Your task to perform on an android device: search for starred emails in the gmail app Image 0: 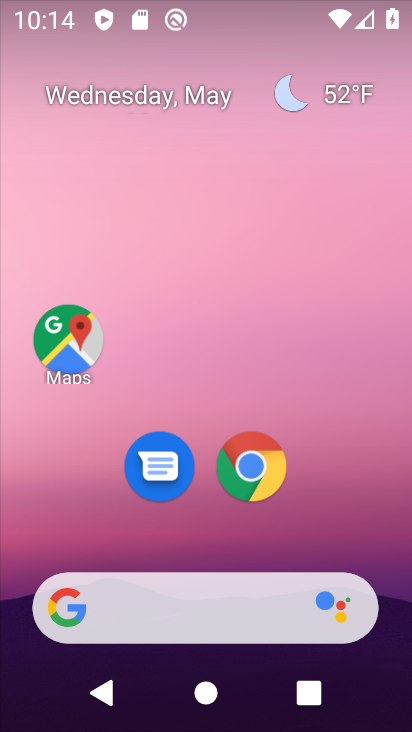
Step 0: drag from (214, 530) to (192, 97)
Your task to perform on an android device: search for starred emails in the gmail app Image 1: 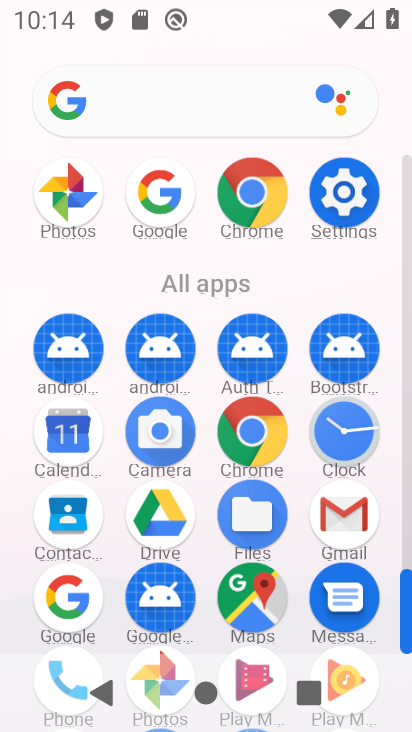
Step 1: click (348, 517)
Your task to perform on an android device: search for starred emails in the gmail app Image 2: 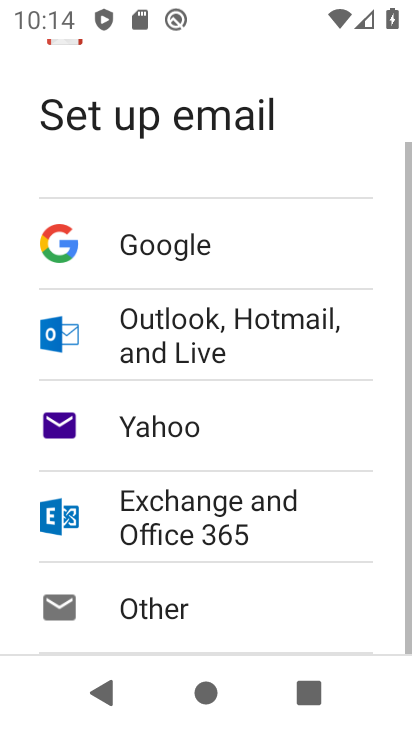
Step 2: drag from (180, 566) to (268, 215)
Your task to perform on an android device: search for starred emails in the gmail app Image 3: 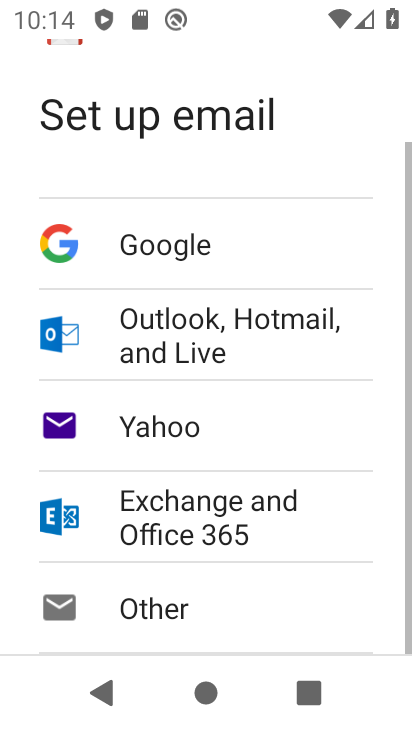
Step 3: press back button
Your task to perform on an android device: search for starred emails in the gmail app Image 4: 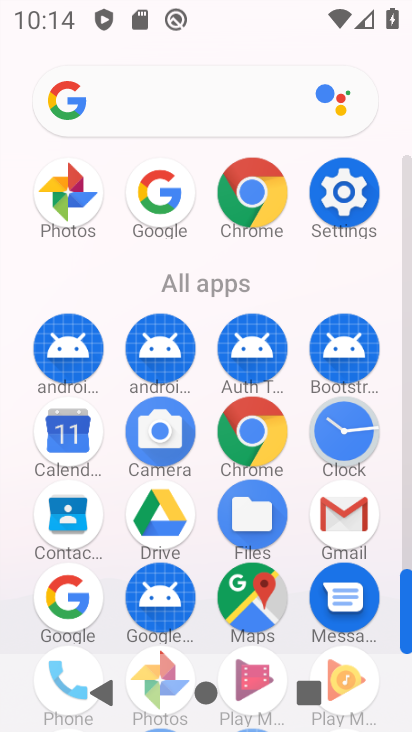
Step 4: click (341, 502)
Your task to perform on an android device: search for starred emails in the gmail app Image 5: 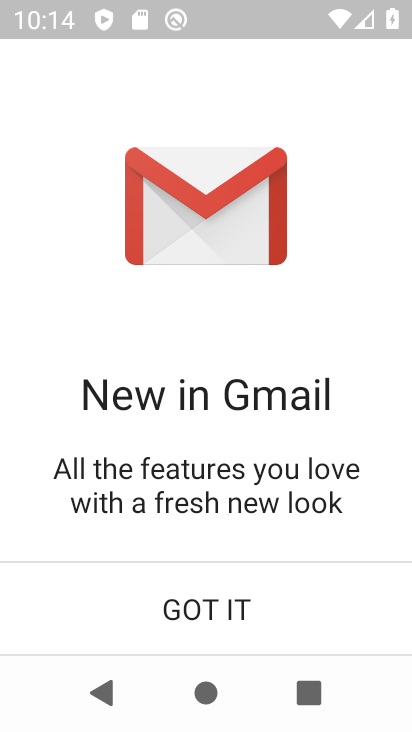
Step 5: click (177, 574)
Your task to perform on an android device: search for starred emails in the gmail app Image 6: 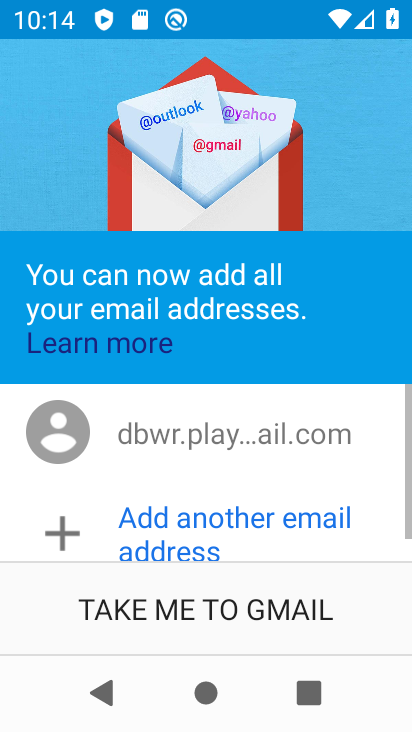
Step 6: click (155, 608)
Your task to perform on an android device: search for starred emails in the gmail app Image 7: 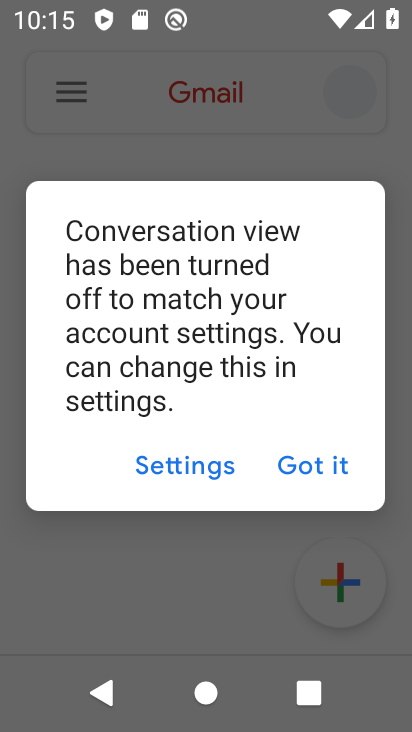
Step 7: click (302, 479)
Your task to perform on an android device: search for starred emails in the gmail app Image 8: 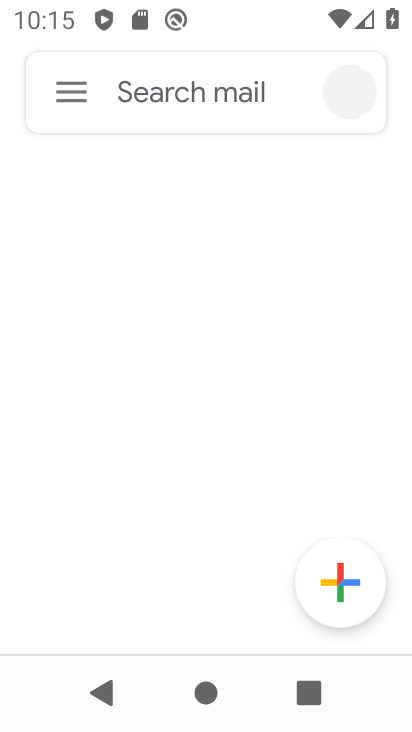
Step 8: click (73, 103)
Your task to perform on an android device: search for starred emails in the gmail app Image 9: 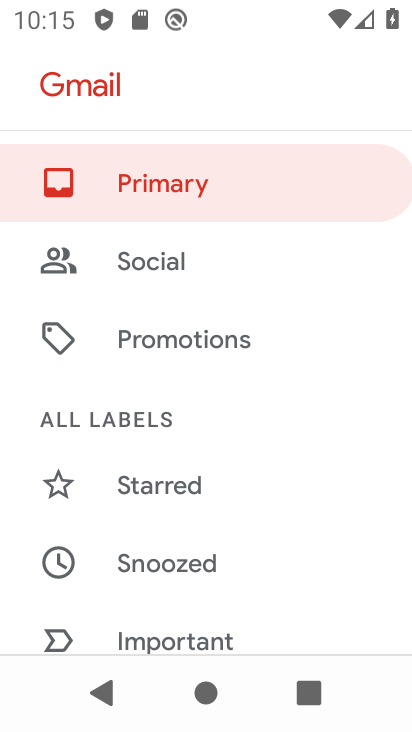
Step 9: drag from (230, 565) to (233, 442)
Your task to perform on an android device: search for starred emails in the gmail app Image 10: 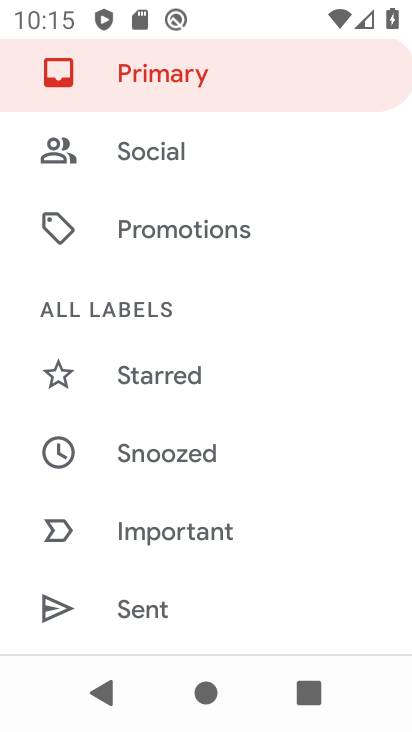
Step 10: click (150, 371)
Your task to perform on an android device: search for starred emails in the gmail app Image 11: 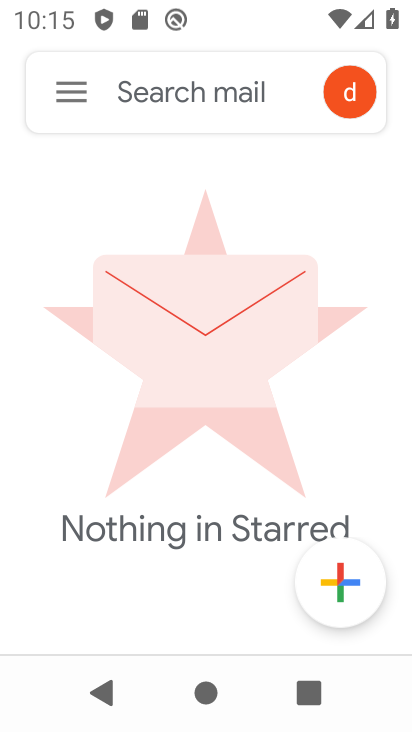
Step 11: task complete